Your task to perform on an android device: Check the news Image 0: 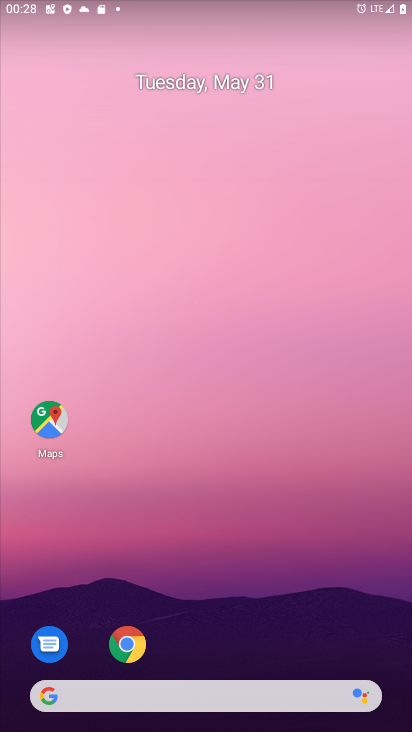
Step 0: drag from (8, 276) to (402, 277)
Your task to perform on an android device: Check the news Image 1: 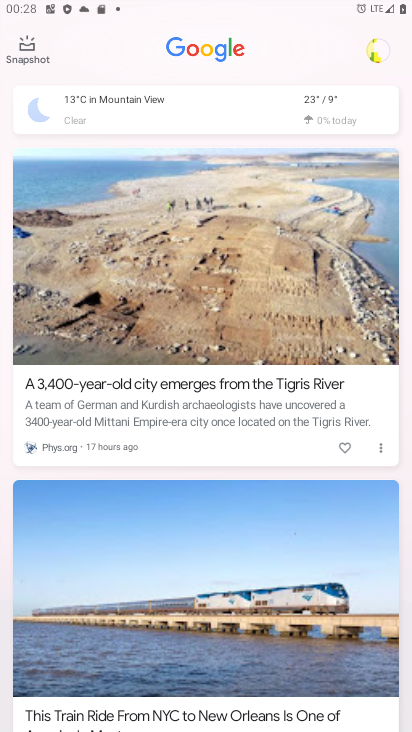
Step 1: task complete